Your task to perform on an android device: How do I get to the nearest IKEA? Image 0: 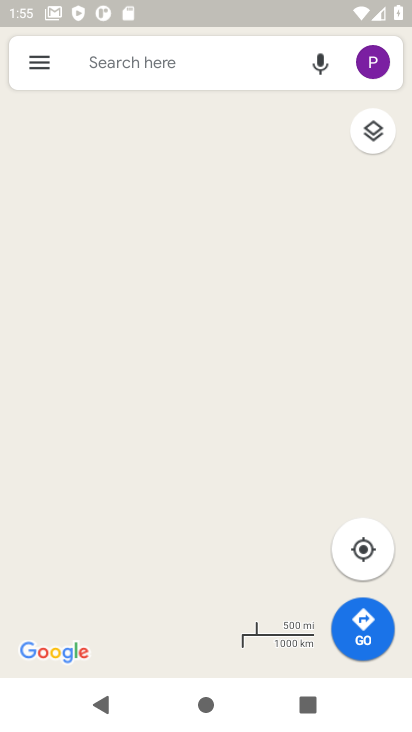
Step 0: click (115, 545)
Your task to perform on an android device: How do I get to the nearest IKEA? Image 1: 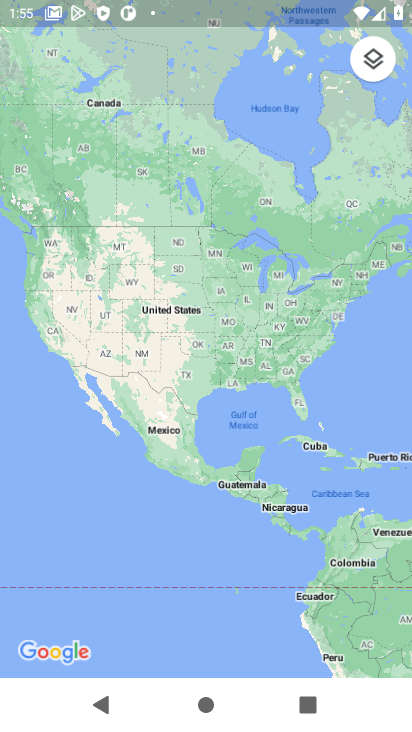
Step 1: press home button
Your task to perform on an android device: How do I get to the nearest IKEA? Image 2: 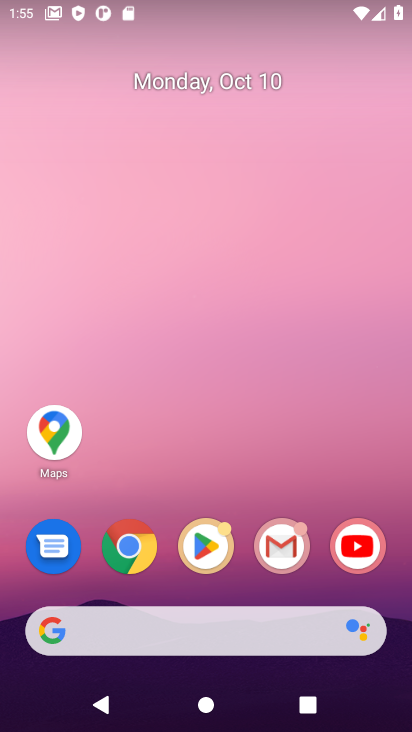
Step 2: click (128, 532)
Your task to perform on an android device: How do I get to the nearest IKEA? Image 3: 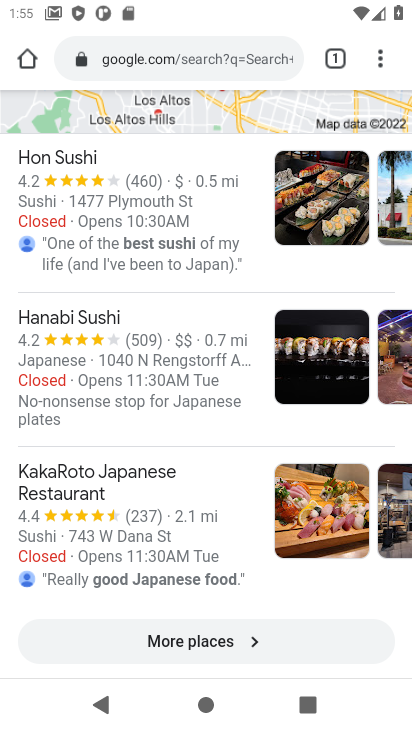
Step 3: click (163, 68)
Your task to perform on an android device: How do I get to the nearest IKEA? Image 4: 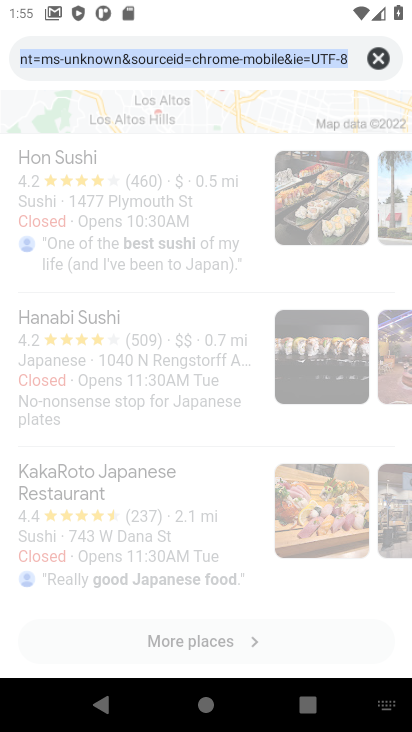
Step 4: click (380, 55)
Your task to perform on an android device: How do I get to the nearest IKEA? Image 5: 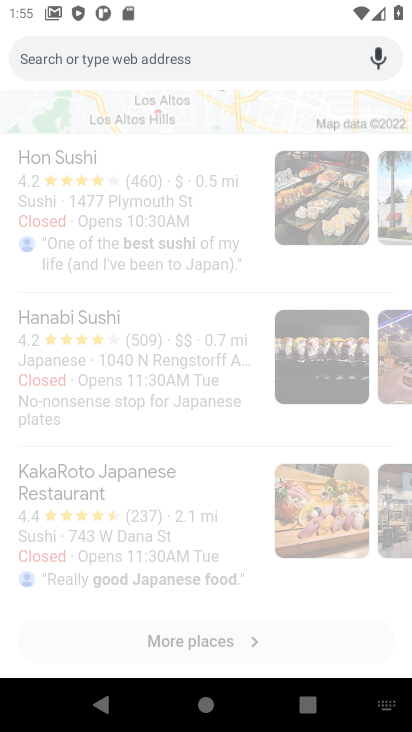
Step 5: type "How do I get to the nearest IKEA?"
Your task to perform on an android device: How do I get to the nearest IKEA? Image 6: 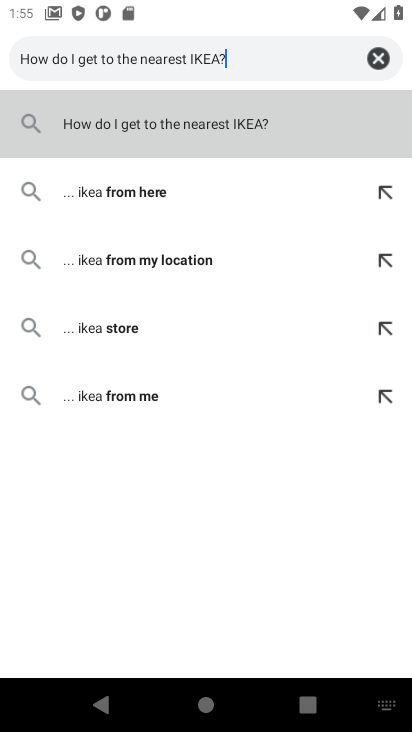
Step 6: click (254, 123)
Your task to perform on an android device: How do I get to the nearest IKEA? Image 7: 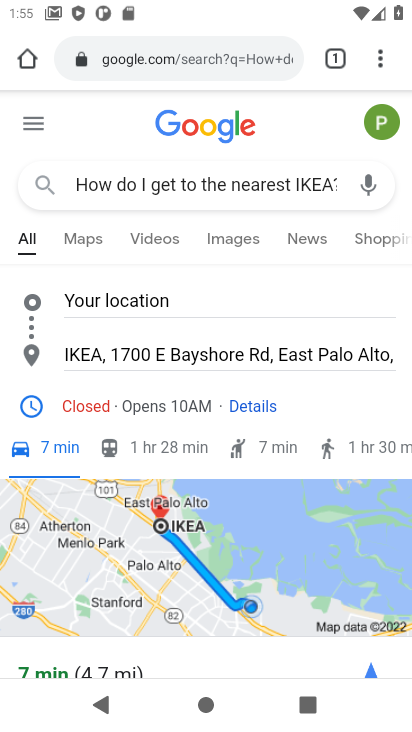
Step 7: task complete